Your task to perform on an android device: open chrome privacy settings Image 0: 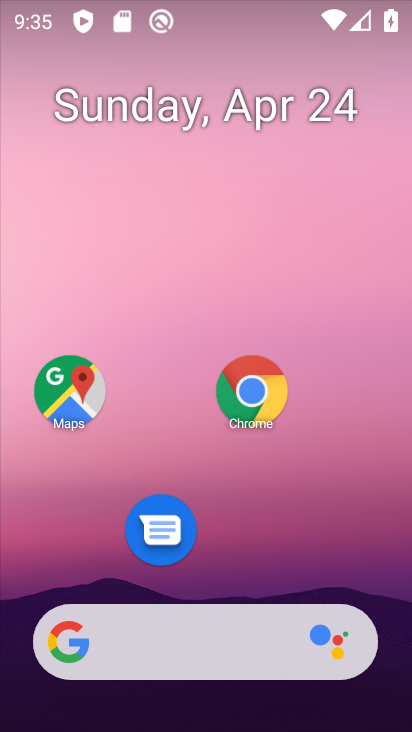
Step 0: click (257, 391)
Your task to perform on an android device: open chrome privacy settings Image 1: 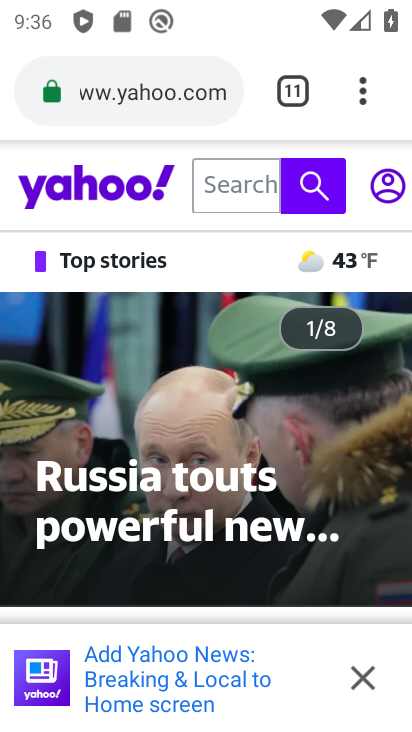
Step 1: click (364, 79)
Your task to perform on an android device: open chrome privacy settings Image 2: 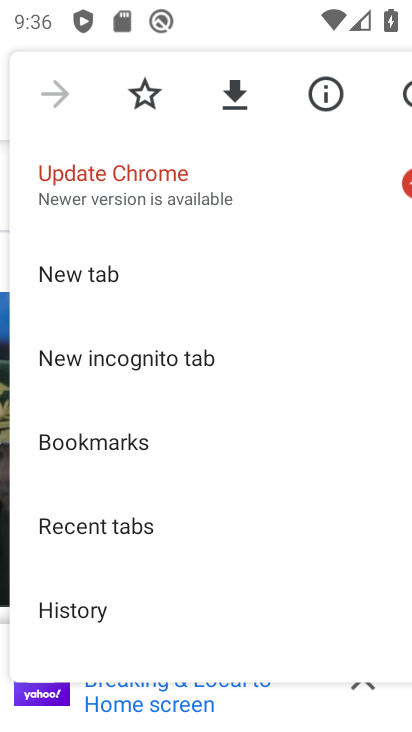
Step 2: drag from (135, 608) to (192, 140)
Your task to perform on an android device: open chrome privacy settings Image 3: 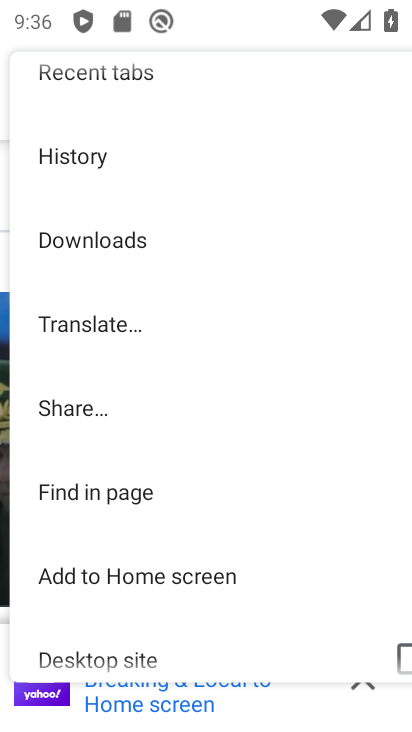
Step 3: drag from (103, 618) to (50, 359)
Your task to perform on an android device: open chrome privacy settings Image 4: 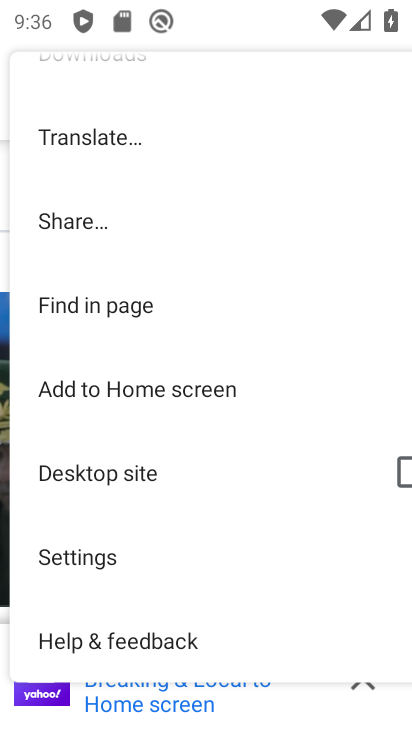
Step 4: drag from (128, 589) to (231, 116)
Your task to perform on an android device: open chrome privacy settings Image 5: 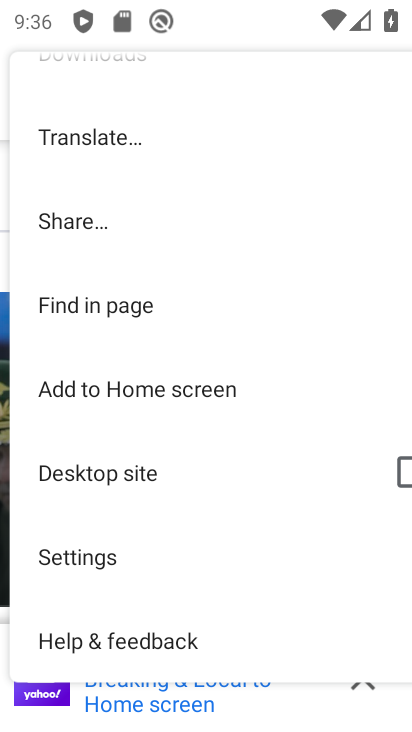
Step 5: drag from (113, 582) to (221, 118)
Your task to perform on an android device: open chrome privacy settings Image 6: 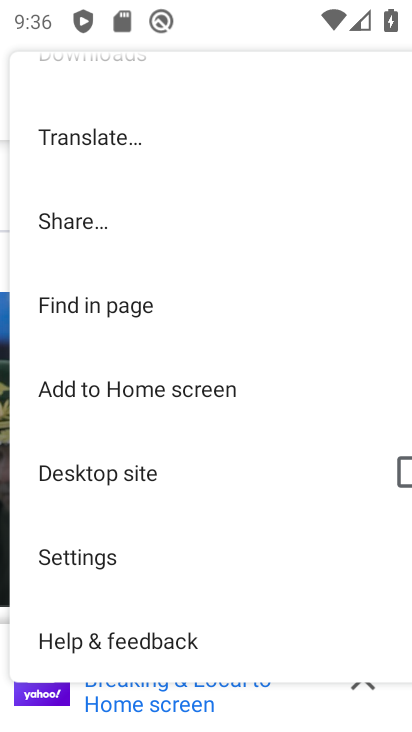
Step 6: drag from (267, 118) to (220, 560)
Your task to perform on an android device: open chrome privacy settings Image 7: 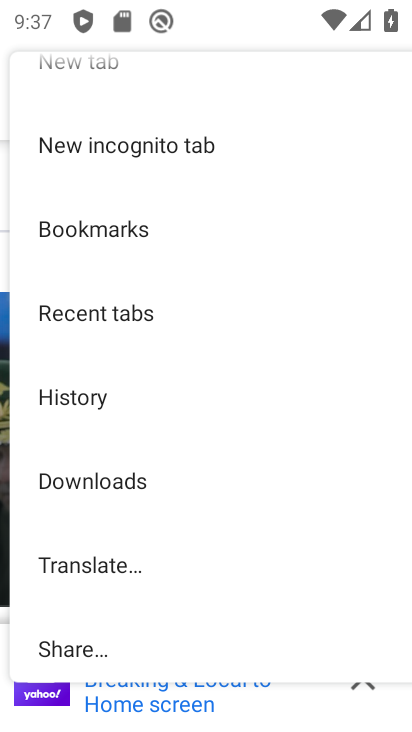
Step 7: drag from (96, 633) to (148, 254)
Your task to perform on an android device: open chrome privacy settings Image 8: 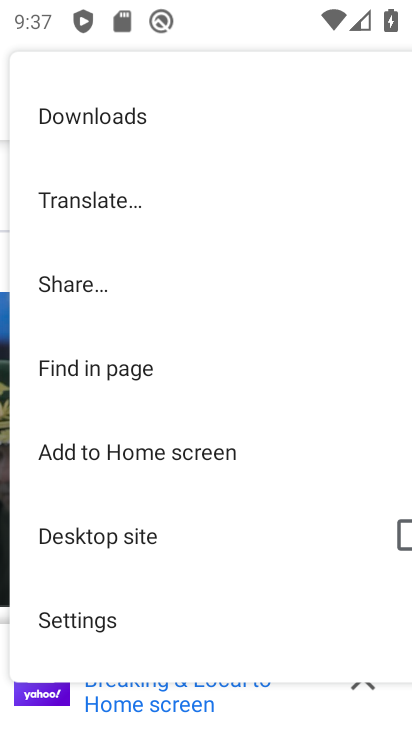
Step 8: click (95, 619)
Your task to perform on an android device: open chrome privacy settings Image 9: 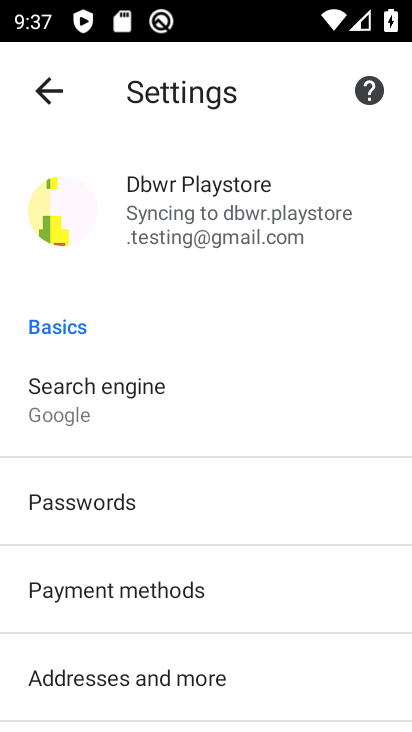
Step 9: drag from (128, 639) to (151, 85)
Your task to perform on an android device: open chrome privacy settings Image 10: 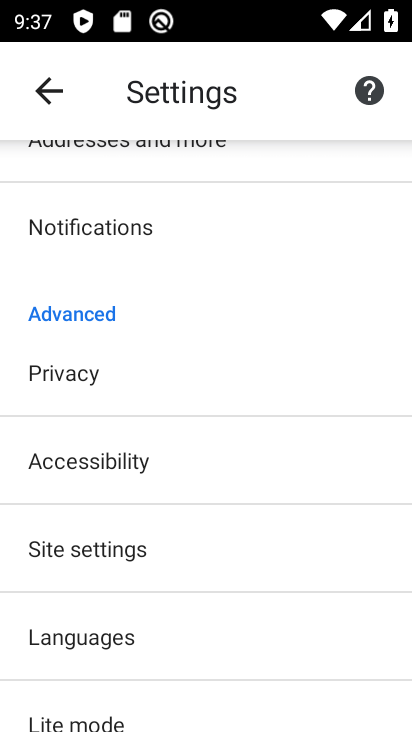
Step 10: drag from (104, 612) to (91, 394)
Your task to perform on an android device: open chrome privacy settings Image 11: 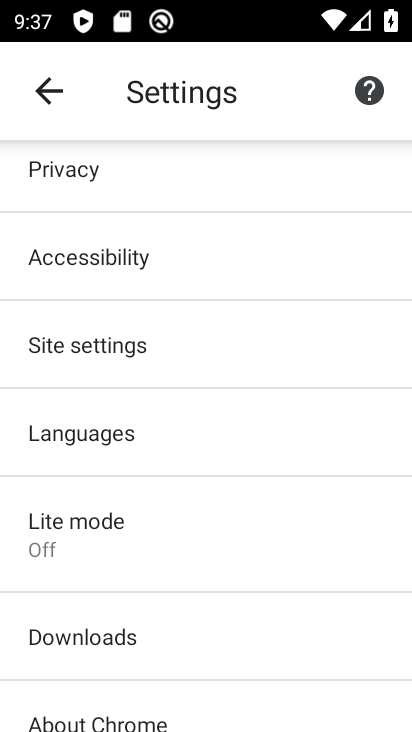
Step 11: click (94, 196)
Your task to perform on an android device: open chrome privacy settings Image 12: 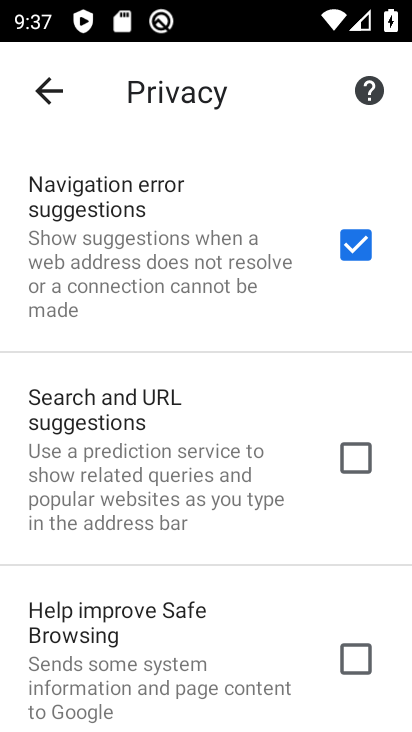
Step 12: task complete